Your task to perform on an android device: Open ESPN.com Image 0: 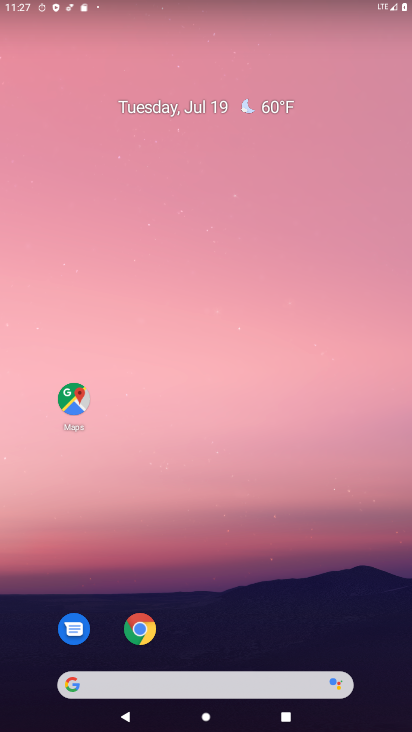
Step 0: drag from (301, 551) to (293, 42)
Your task to perform on an android device: Open ESPN.com Image 1: 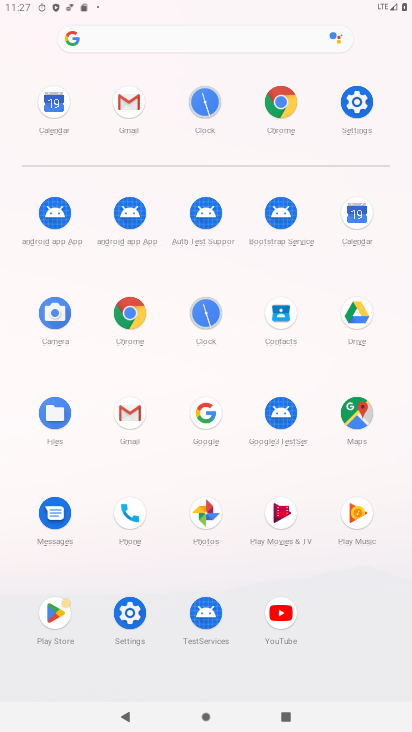
Step 1: click (280, 104)
Your task to perform on an android device: Open ESPN.com Image 2: 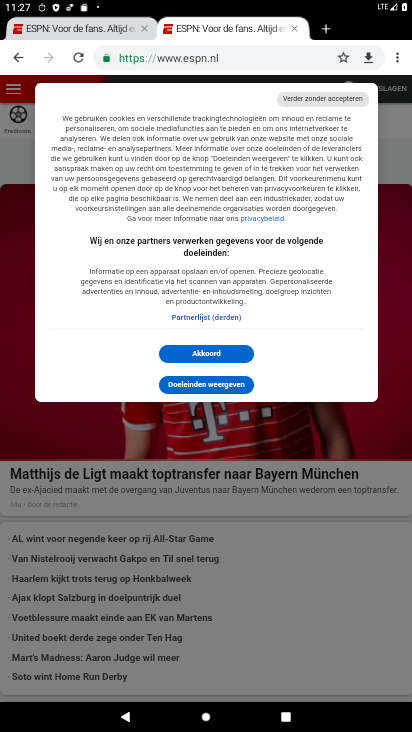
Step 2: task complete